Your task to perform on an android device: set an alarm Image 0: 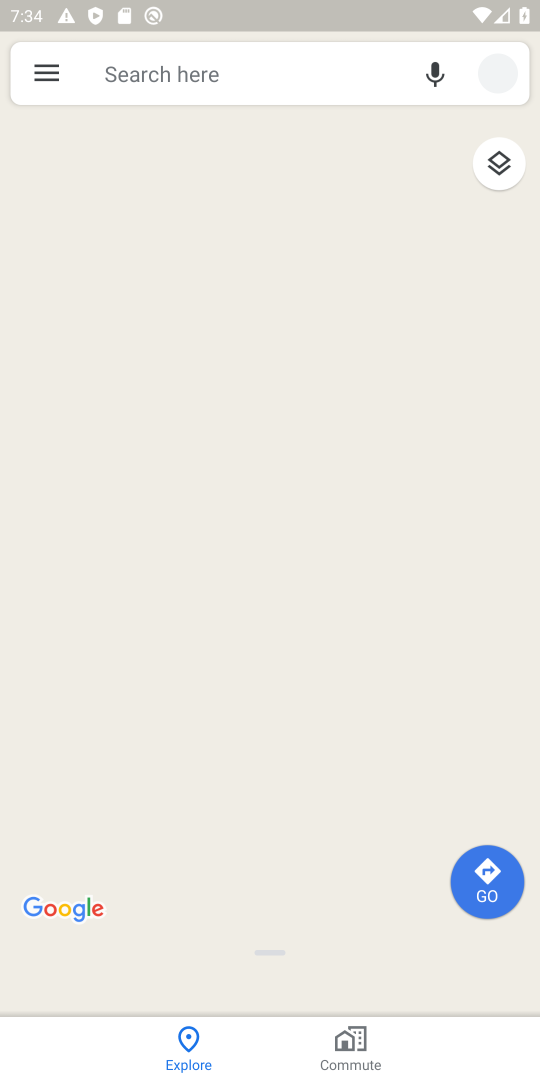
Step 0: press home button
Your task to perform on an android device: set an alarm Image 1: 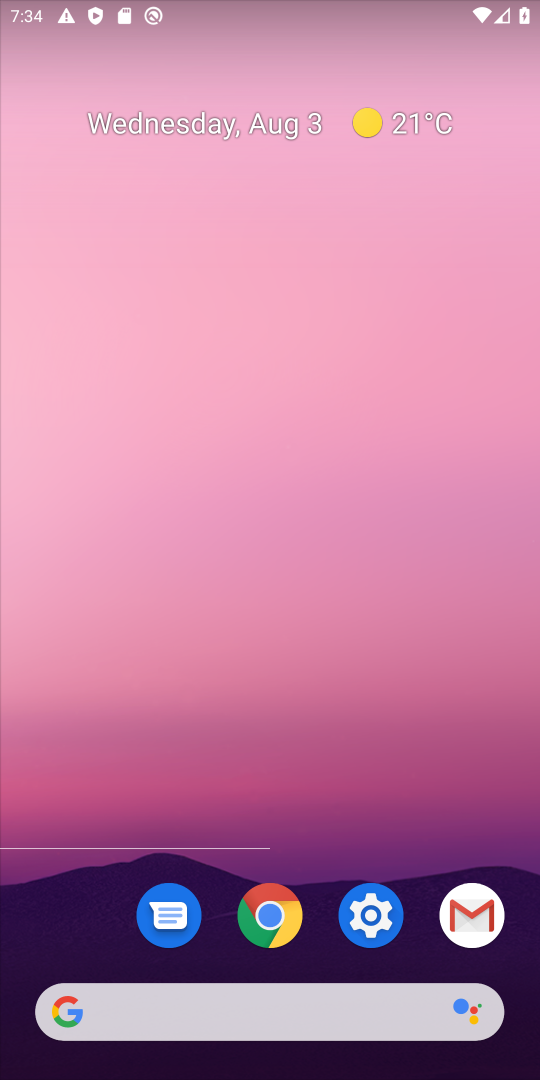
Step 1: drag from (365, 1038) to (309, 447)
Your task to perform on an android device: set an alarm Image 2: 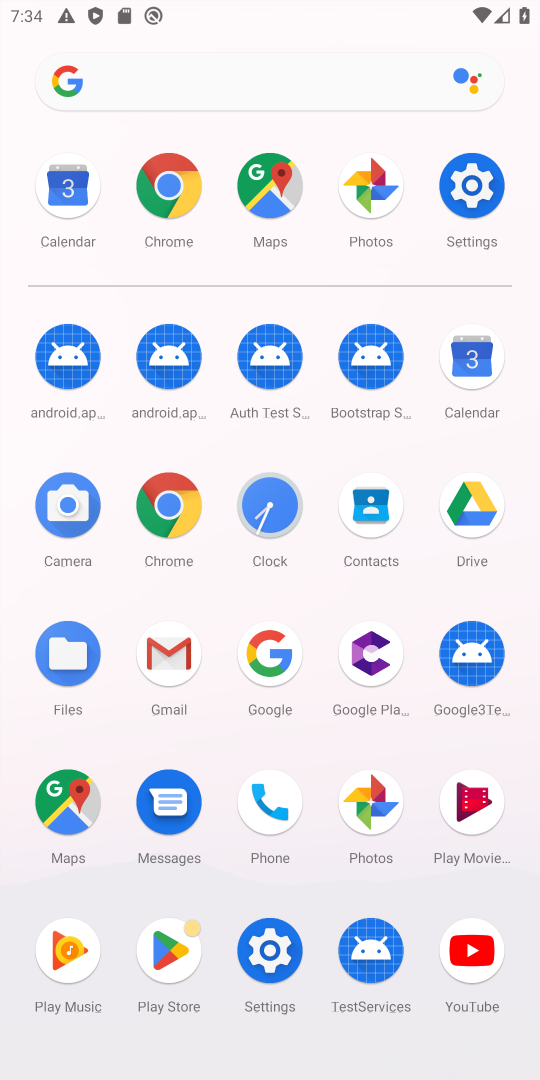
Step 2: click (271, 503)
Your task to perform on an android device: set an alarm Image 3: 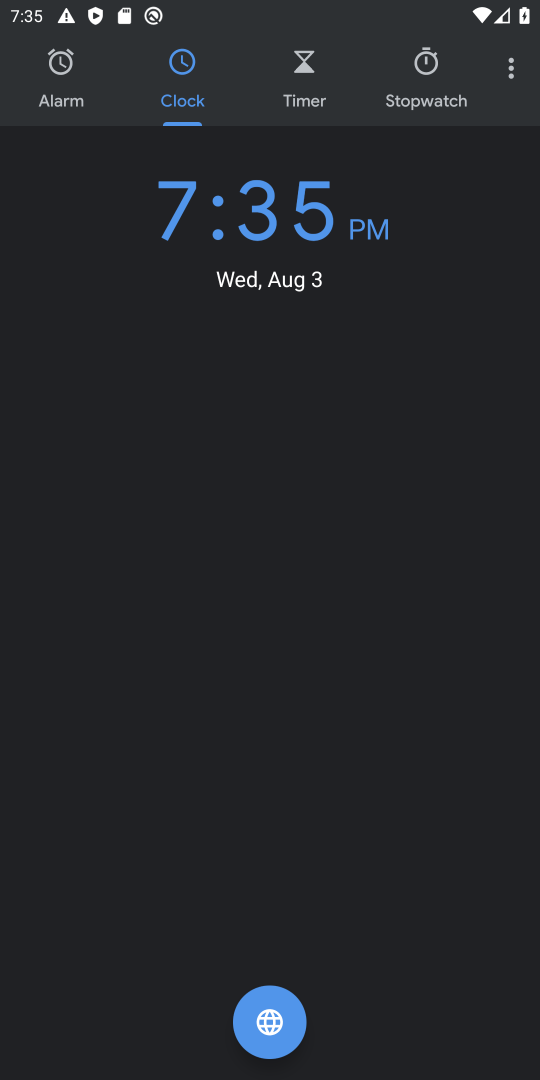
Step 3: click (59, 91)
Your task to perform on an android device: set an alarm Image 4: 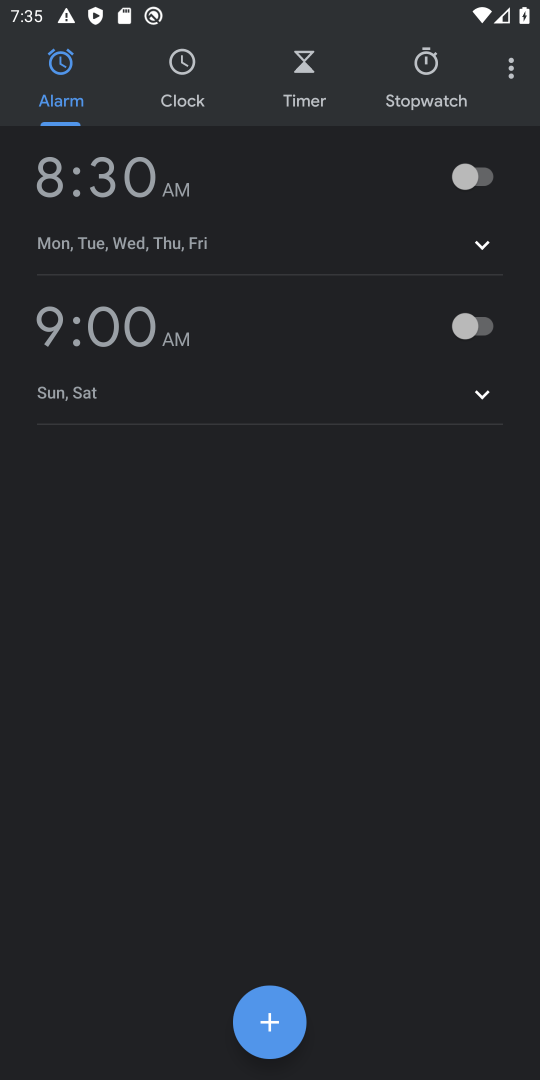
Step 4: click (465, 180)
Your task to perform on an android device: set an alarm Image 5: 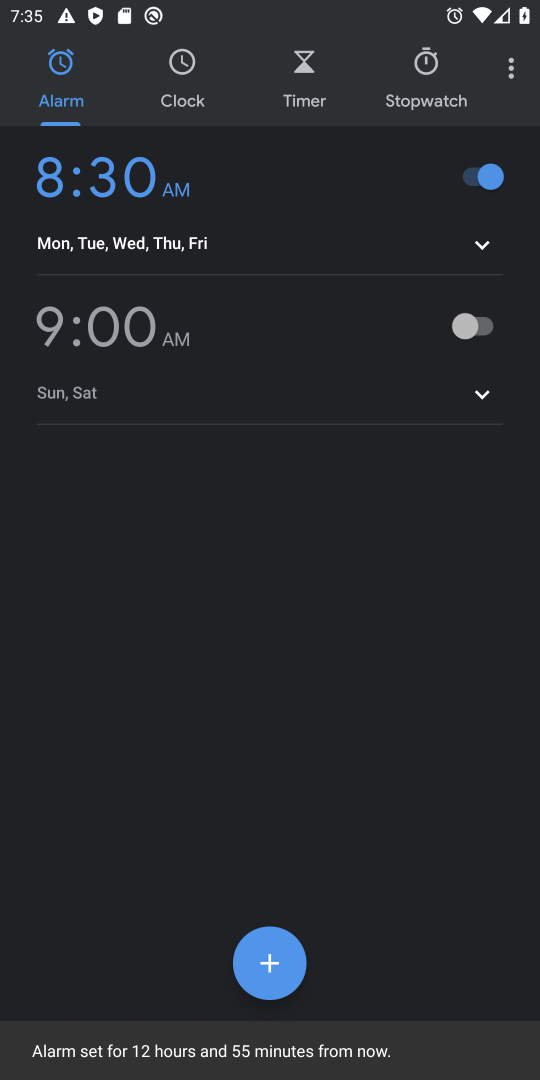
Step 5: task complete